Your task to perform on an android device: Search for "asus zenbook" on costco, select the first entry, and add it to the cart. Image 0: 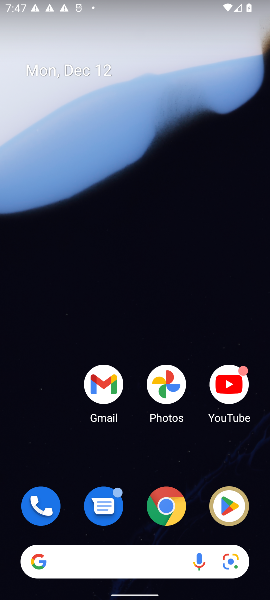
Step 0: click (139, 553)
Your task to perform on an android device: Search for "asus zenbook" on costco, select the first entry, and add it to the cart. Image 1: 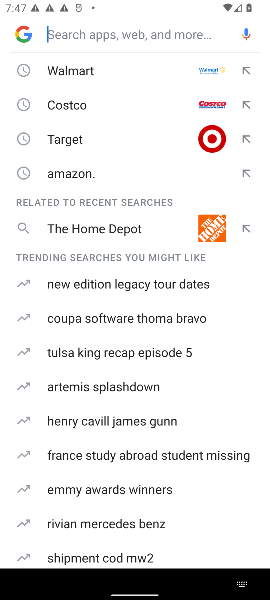
Step 1: type ""
Your task to perform on an android device: Search for "asus zenbook" on costco, select the first entry, and add it to the cart. Image 2: 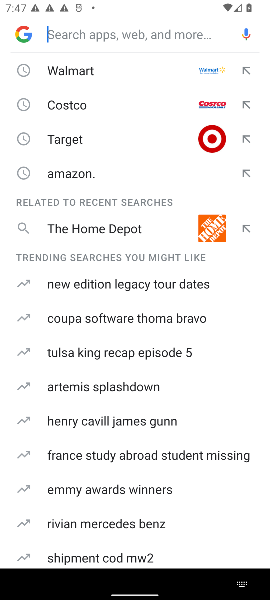
Step 2: type "costco"
Your task to perform on an android device: Search for "asus zenbook" on costco, select the first entry, and add it to the cart. Image 3: 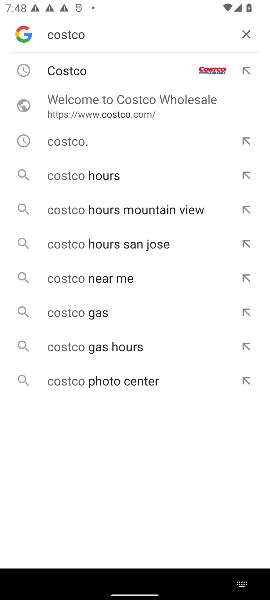
Step 3: click (94, 76)
Your task to perform on an android device: Search for "asus zenbook" on costco, select the first entry, and add it to the cart. Image 4: 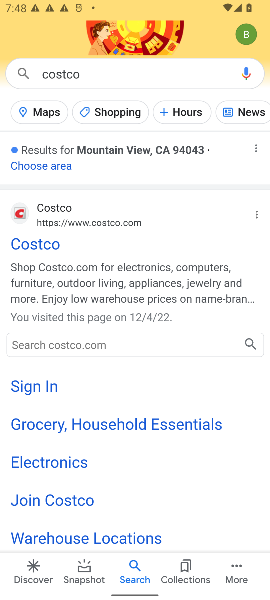
Step 4: click (42, 233)
Your task to perform on an android device: Search for "asus zenbook" on costco, select the first entry, and add it to the cart. Image 5: 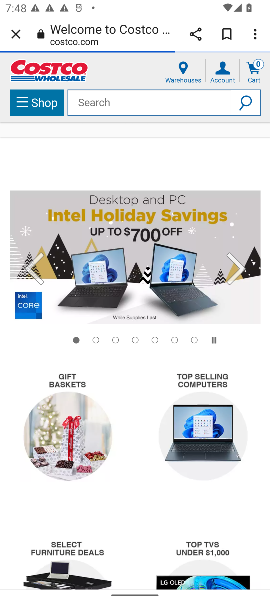
Step 5: click (117, 108)
Your task to perform on an android device: Search for "asus zenbook" on costco, select the first entry, and add it to the cart. Image 6: 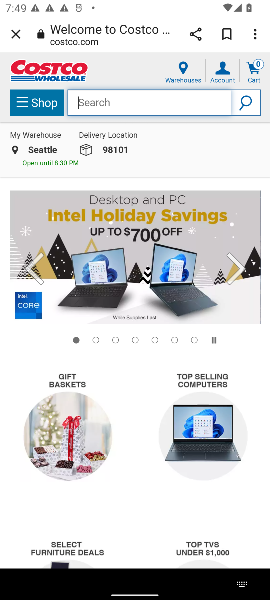
Step 6: type "asus zenbook"
Your task to perform on an android device: Search for "asus zenbook" on costco, select the first entry, and add it to the cart. Image 7: 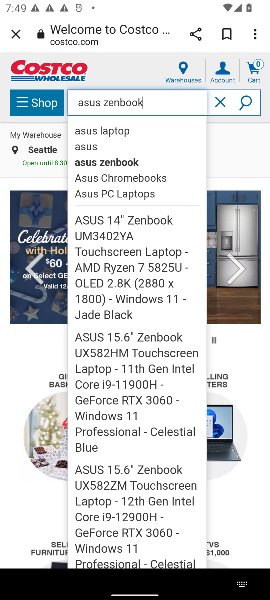
Step 7: click (249, 108)
Your task to perform on an android device: Search for "asus zenbook" on costco, select the first entry, and add it to the cart. Image 8: 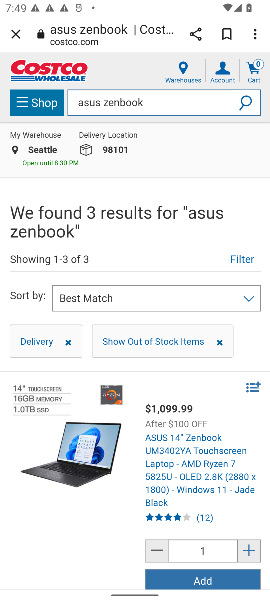
Step 8: click (211, 575)
Your task to perform on an android device: Search for "asus zenbook" on costco, select the first entry, and add it to the cart. Image 9: 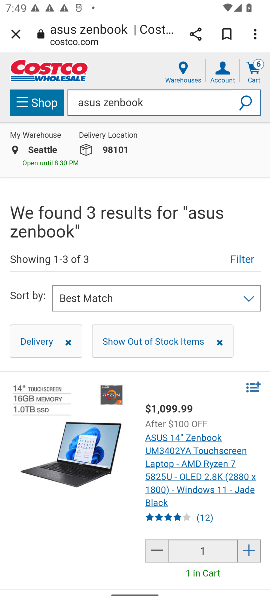
Step 9: task complete